Your task to perform on an android device: Add usb-c to the cart on newegg Image 0: 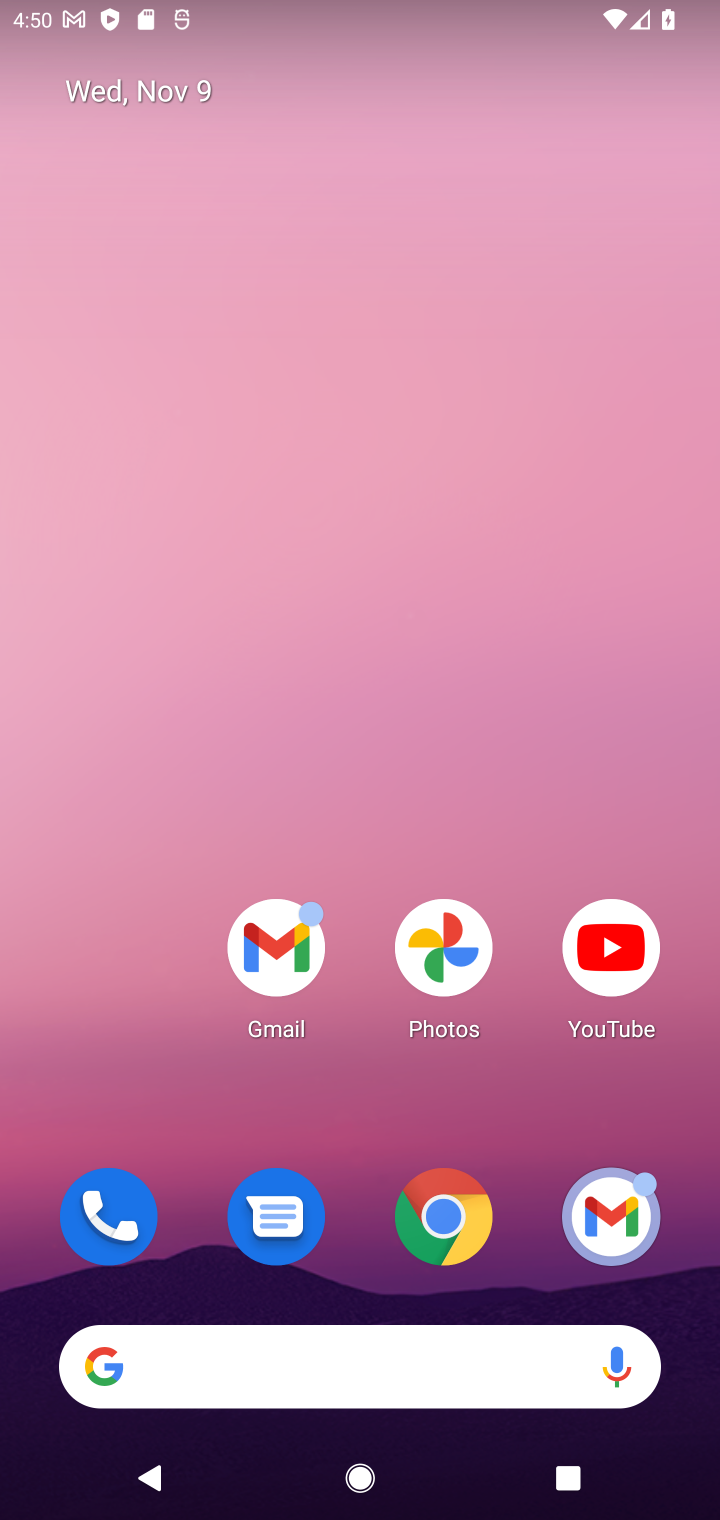
Step 0: drag from (374, 1125) to (340, 109)
Your task to perform on an android device: Add usb-c to the cart on newegg Image 1: 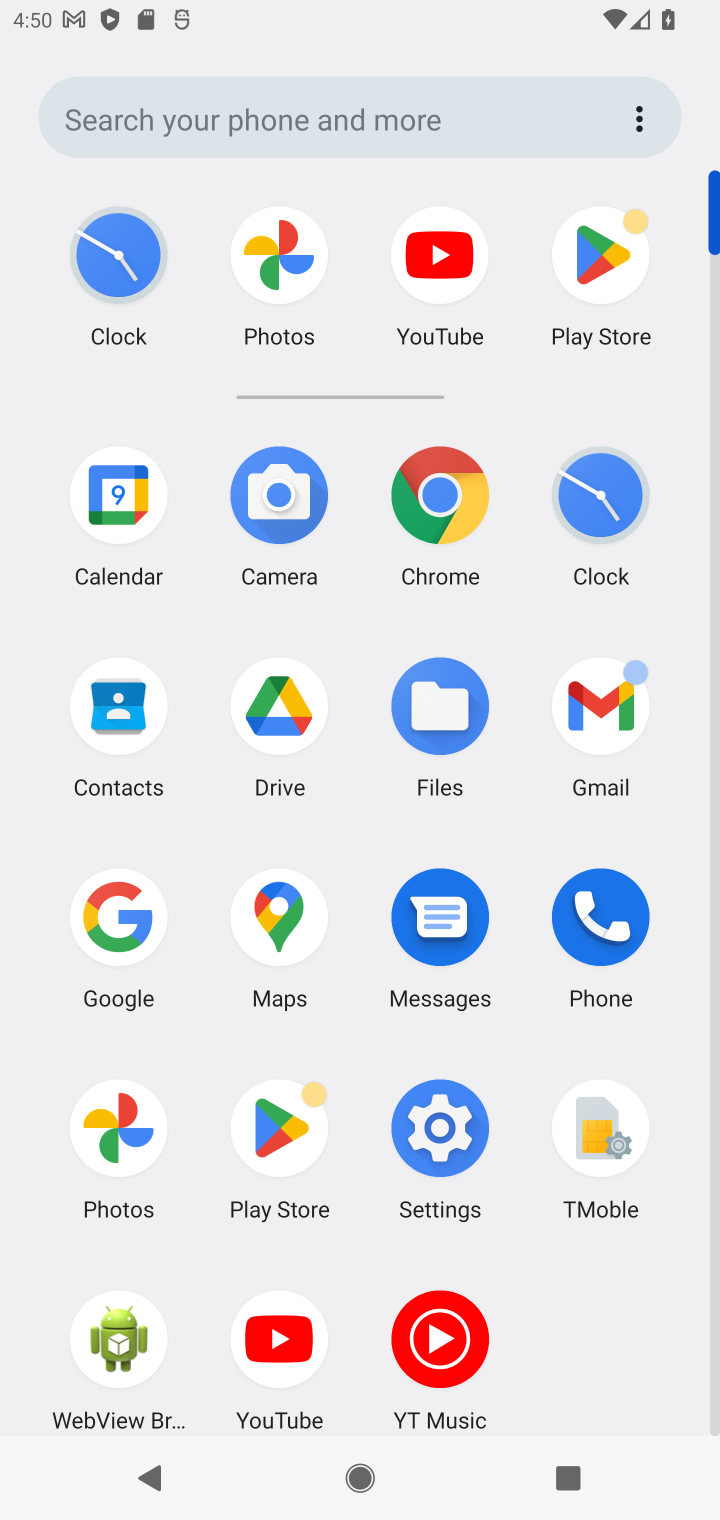
Step 1: click (440, 499)
Your task to perform on an android device: Add usb-c to the cart on newegg Image 2: 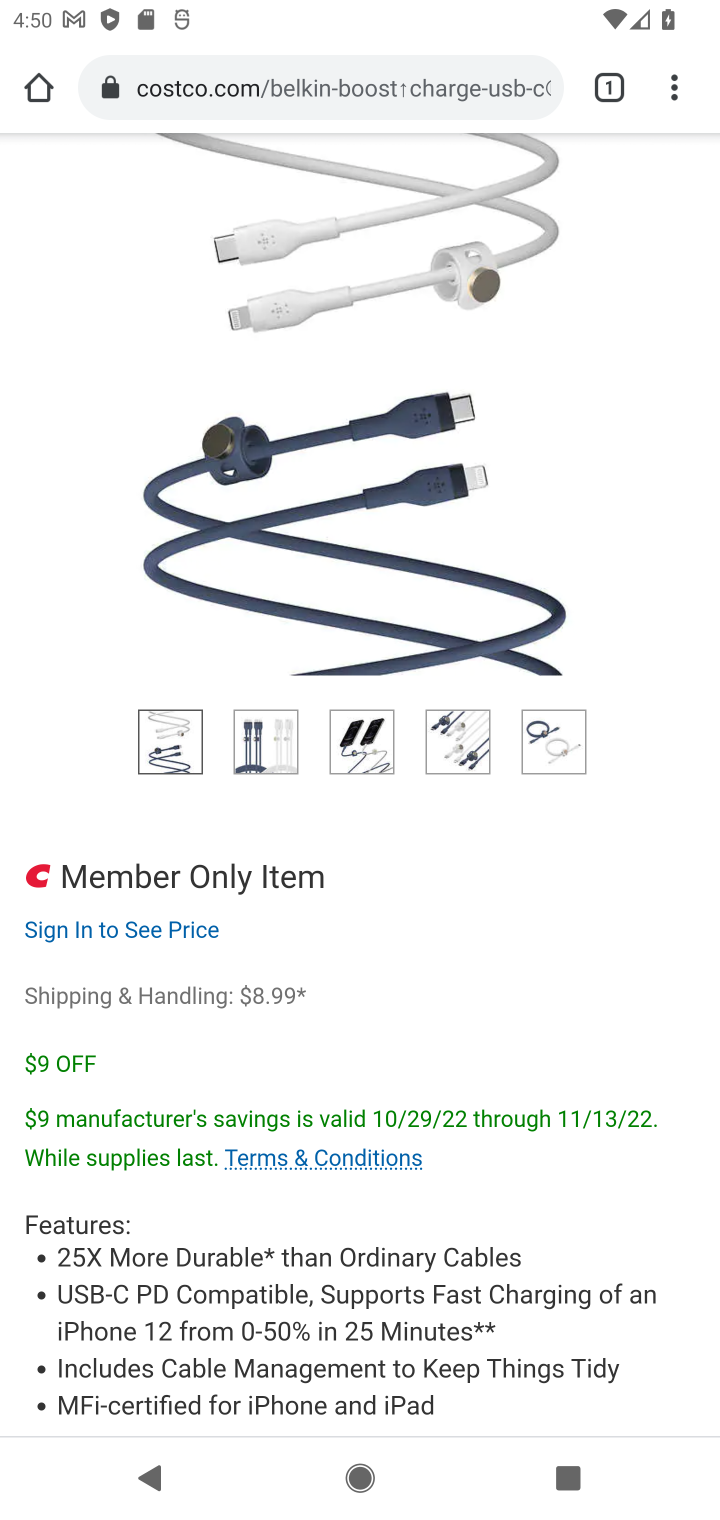
Step 2: click (413, 89)
Your task to perform on an android device: Add usb-c to the cart on newegg Image 3: 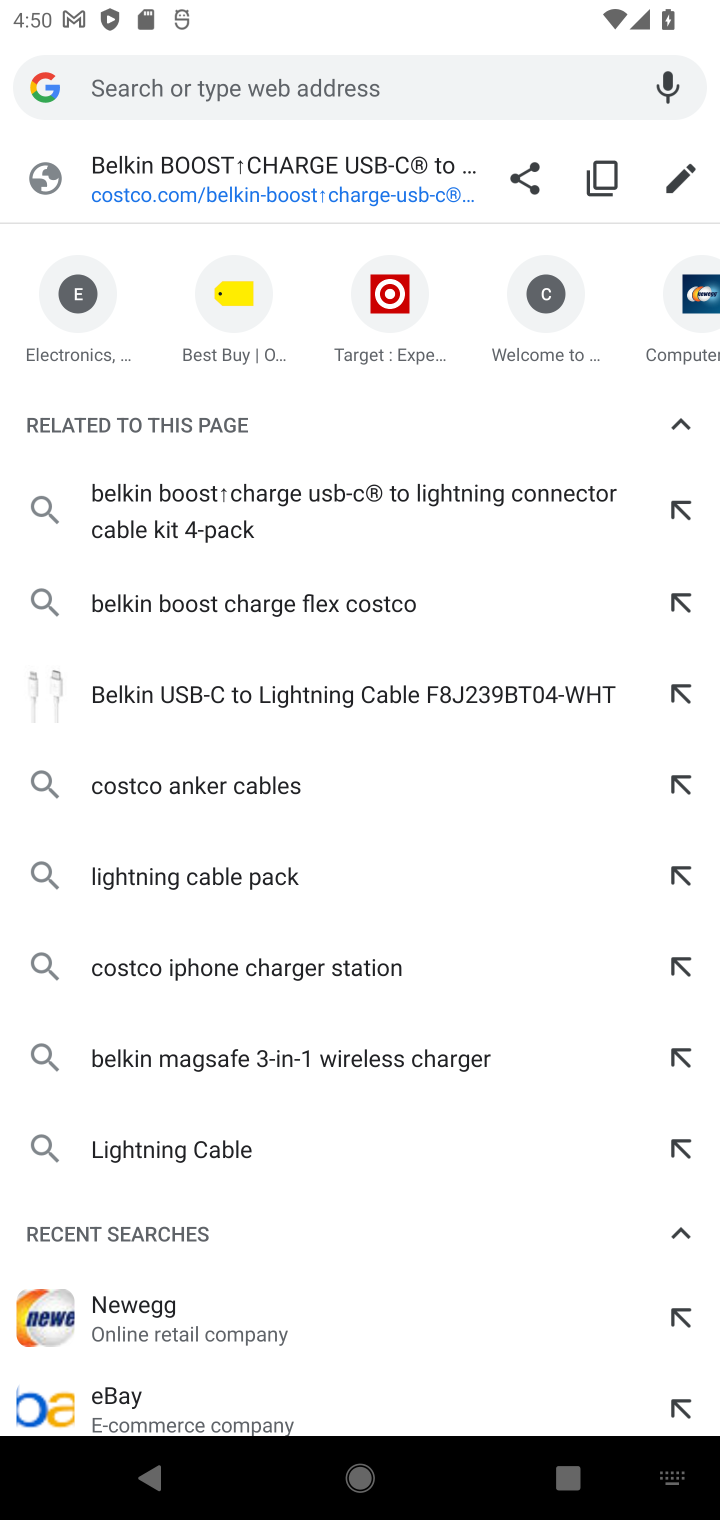
Step 3: type "newegg.com"
Your task to perform on an android device: Add usb-c to the cart on newegg Image 4: 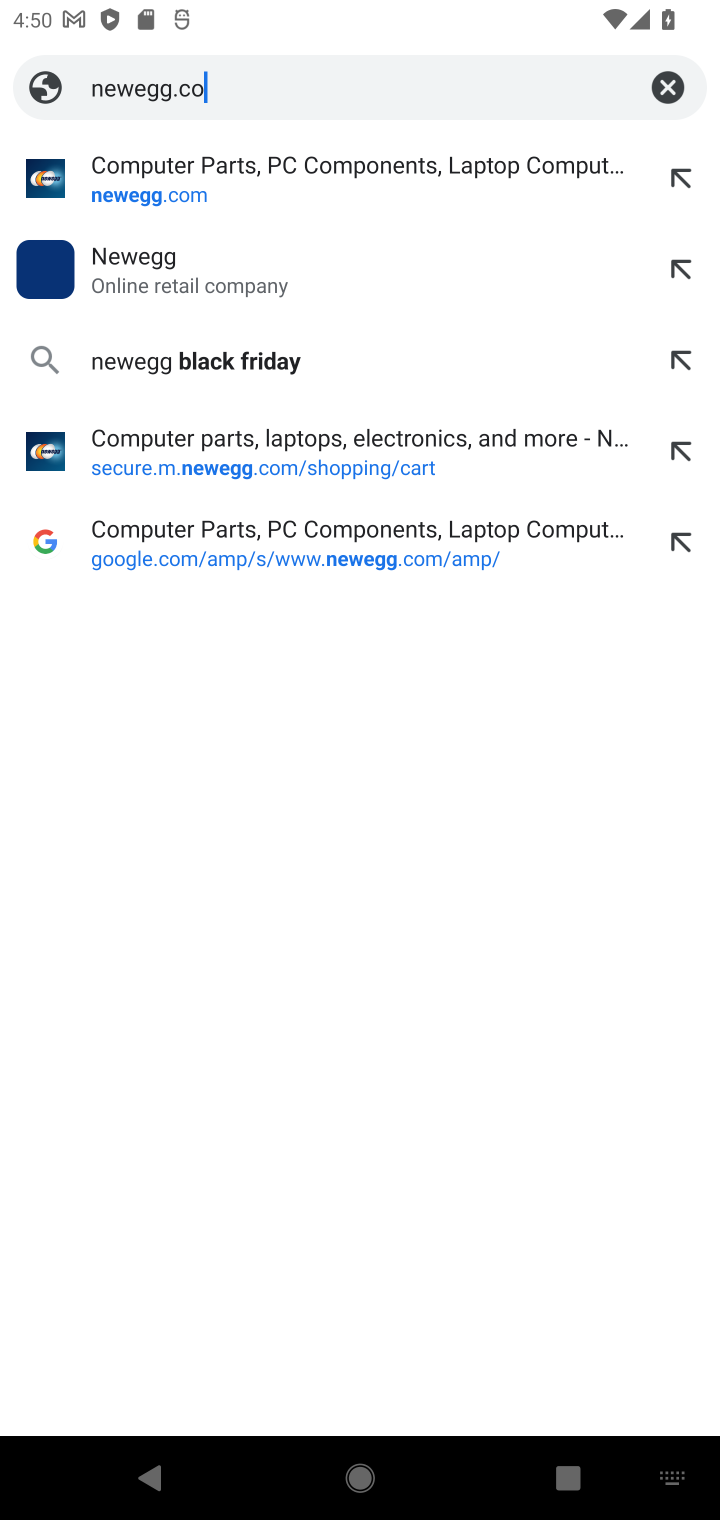
Step 4: press enter
Your task to perform on an android device: Add usb-c to the cart on newegg Image 5: 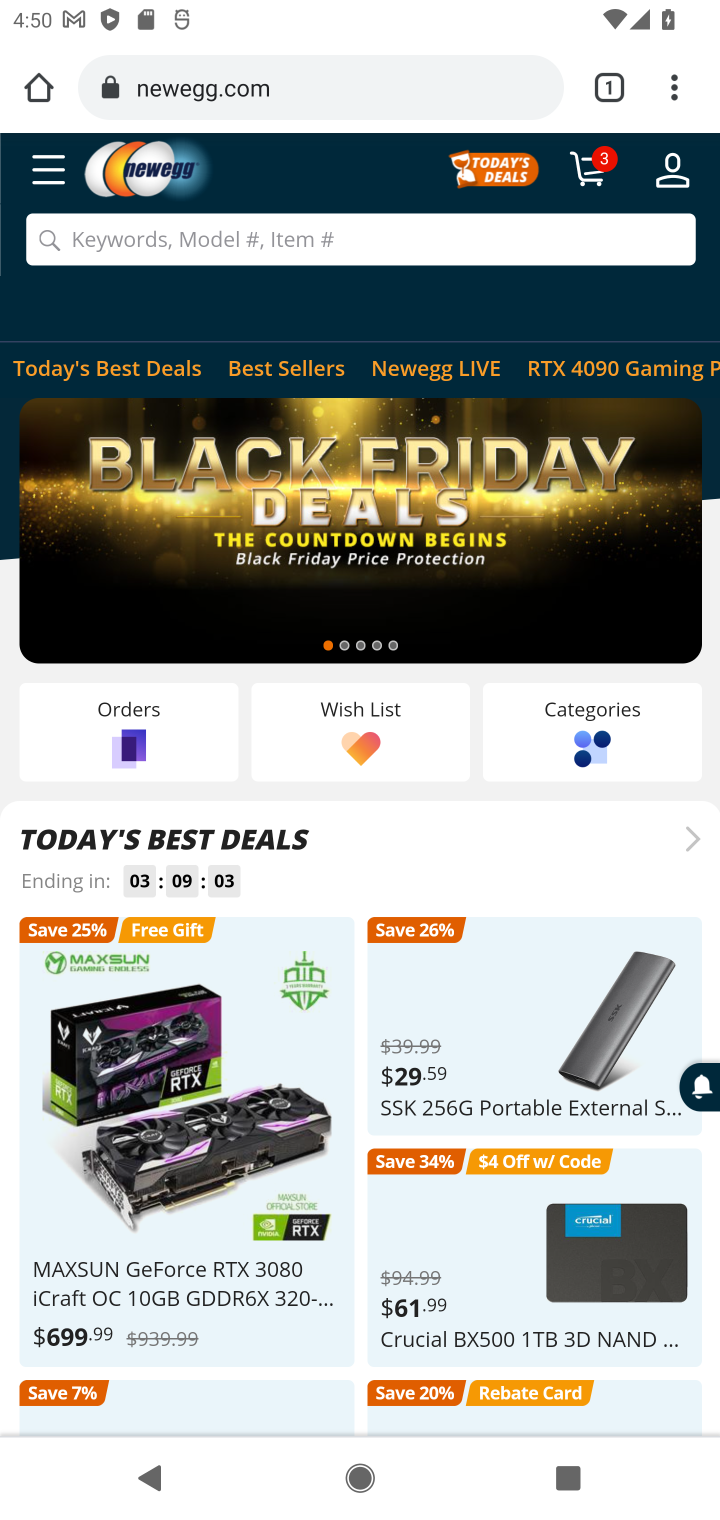
Step 5: click (345, 243)
Your task to perform on an android device: Add usb-c to the cart on newegg Image 6: 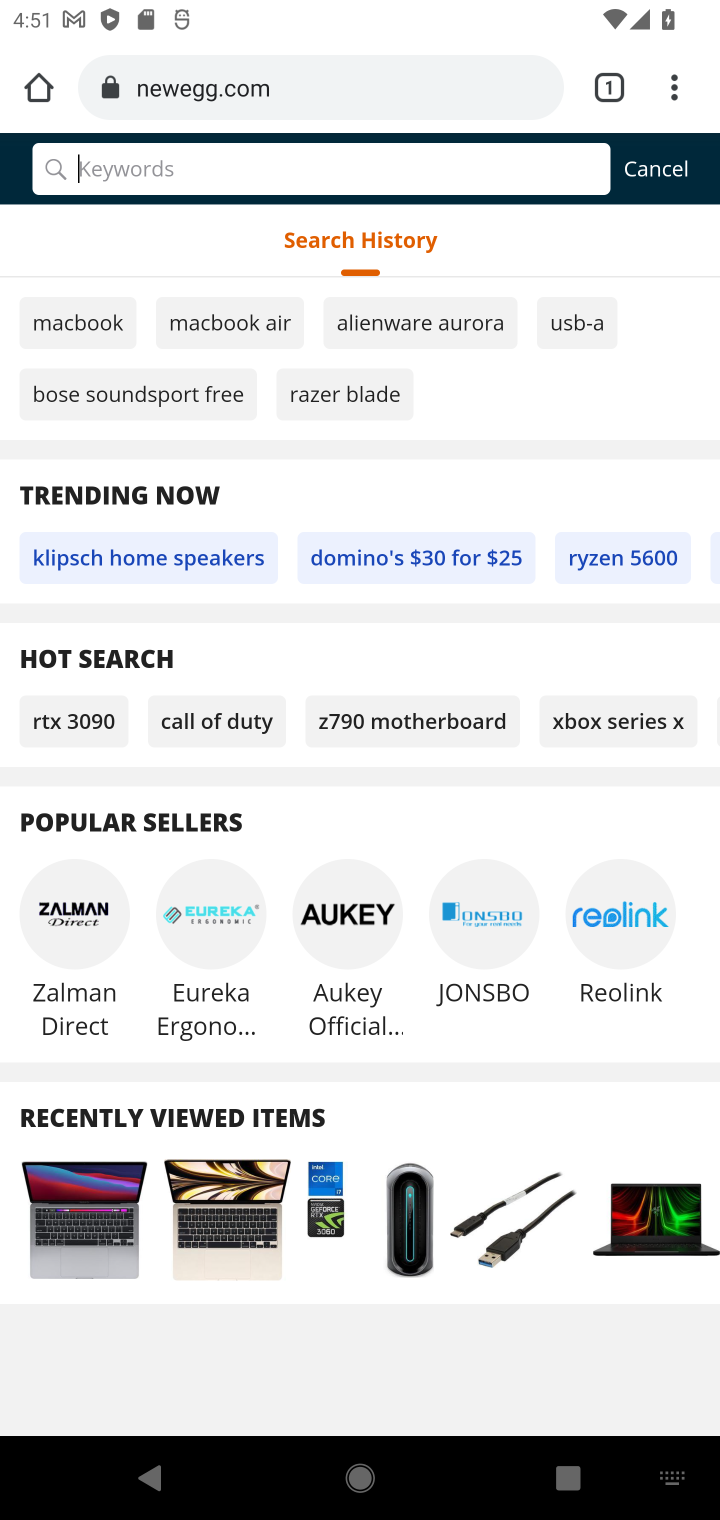
Step 6: type "usb-c"
Your task to perform on an android device: Add usb-c to the cart on newegg Image 7: 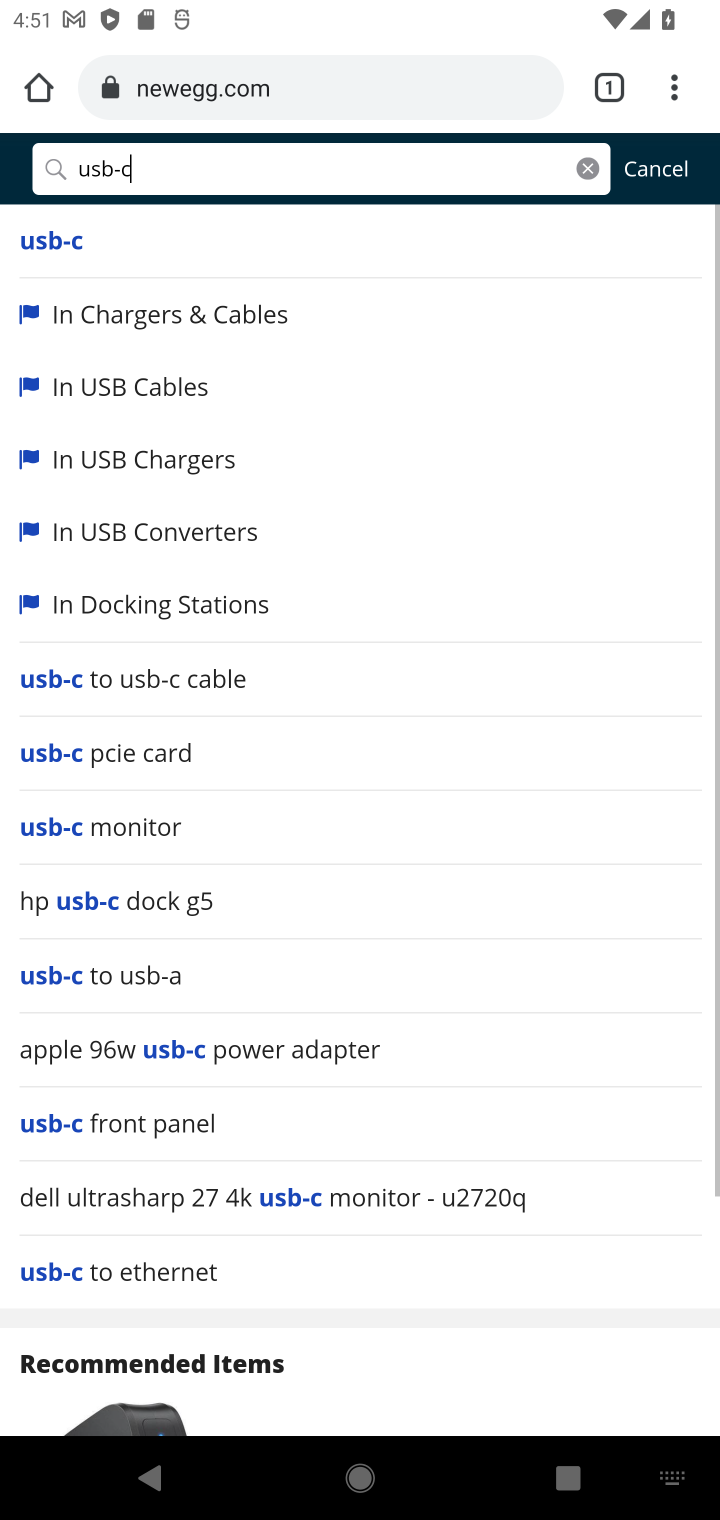
Step 7: press enter
Your task to perform on an android device: Add usb-c to the cart on newegg Image 8: 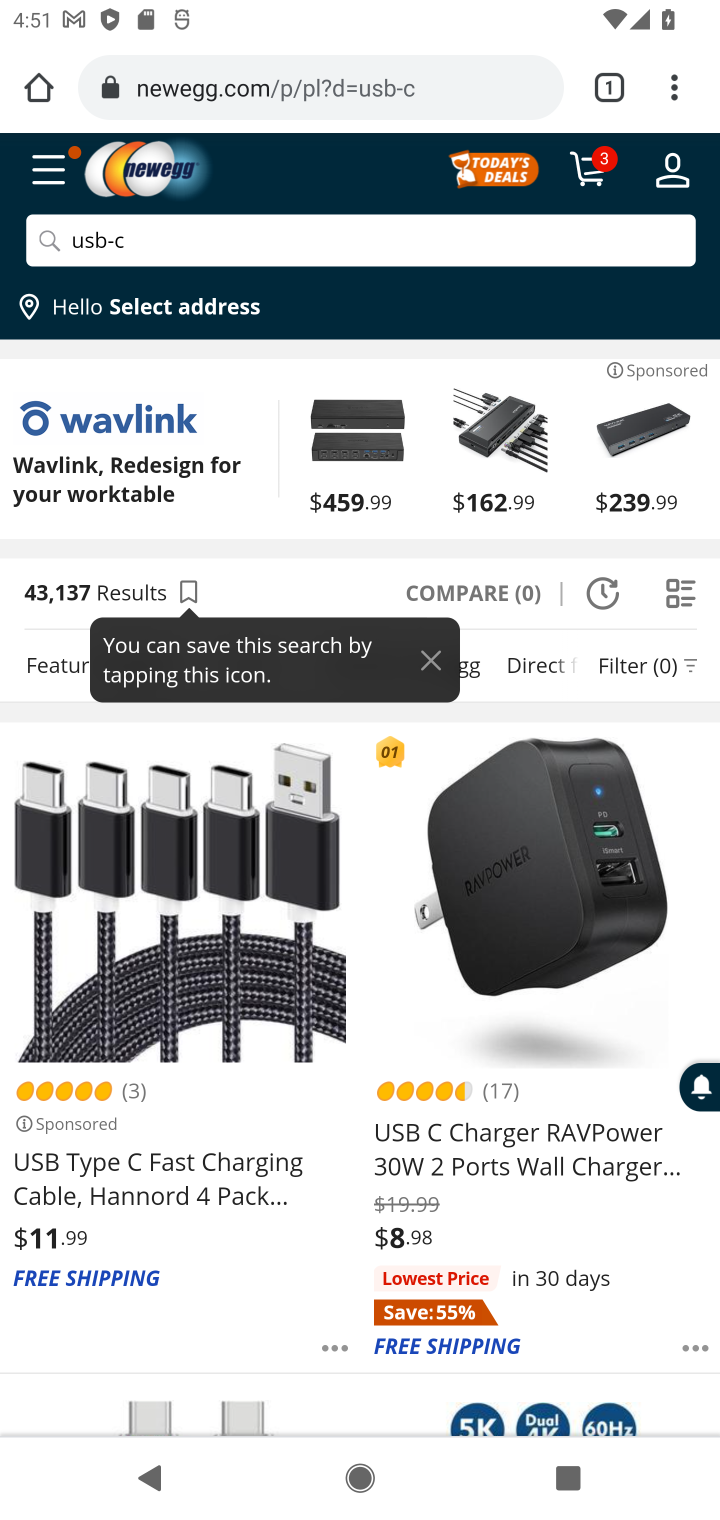
Step 8: click (221, 958)
Your task to perform on an android device: Add usb-c to the cart on newegg Image 9: 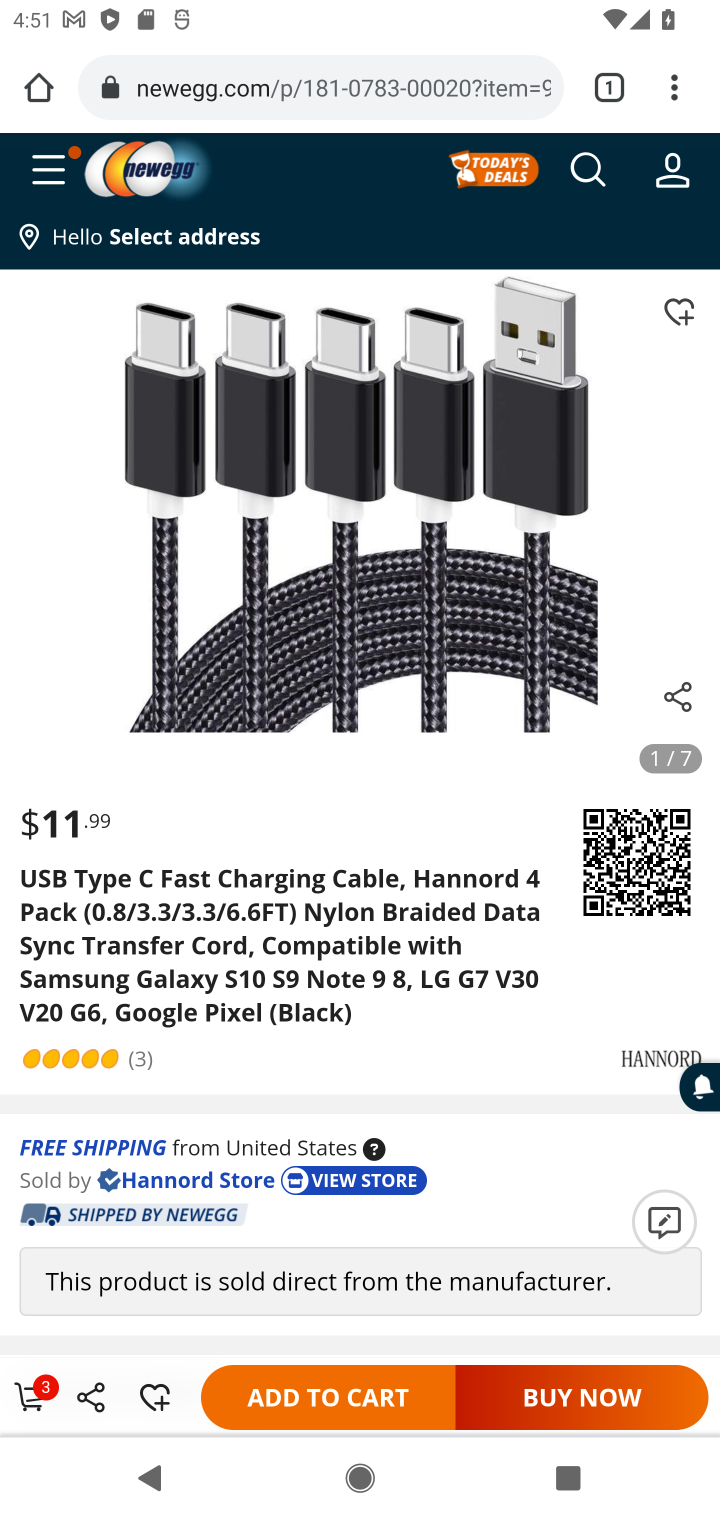
Step 9: press back button
Your task to perform on an android device: Add usb-c to the cart on newegg Image 10: 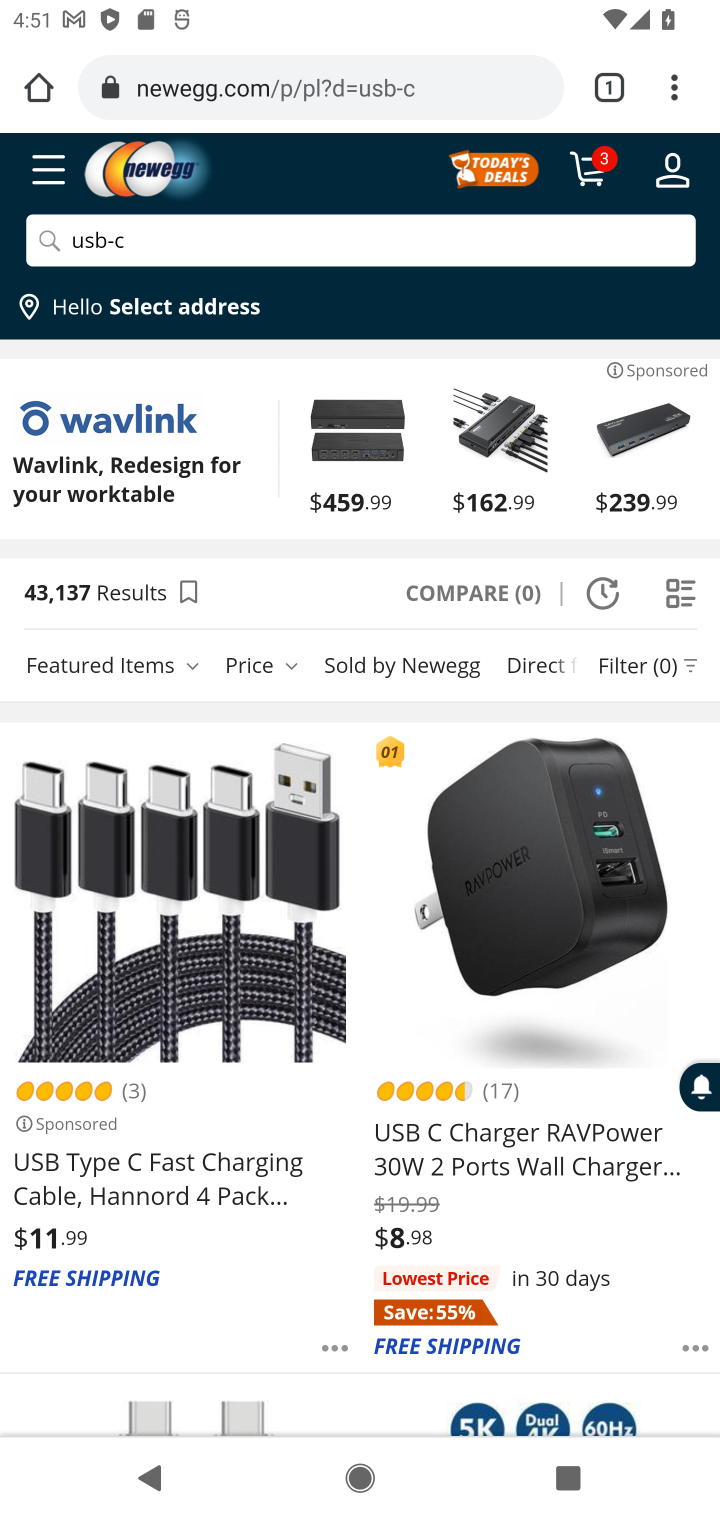
Step 10: click (544, 1150)
Your task to perform on an android device: Add usb-c to the cart on newegg Image 11: 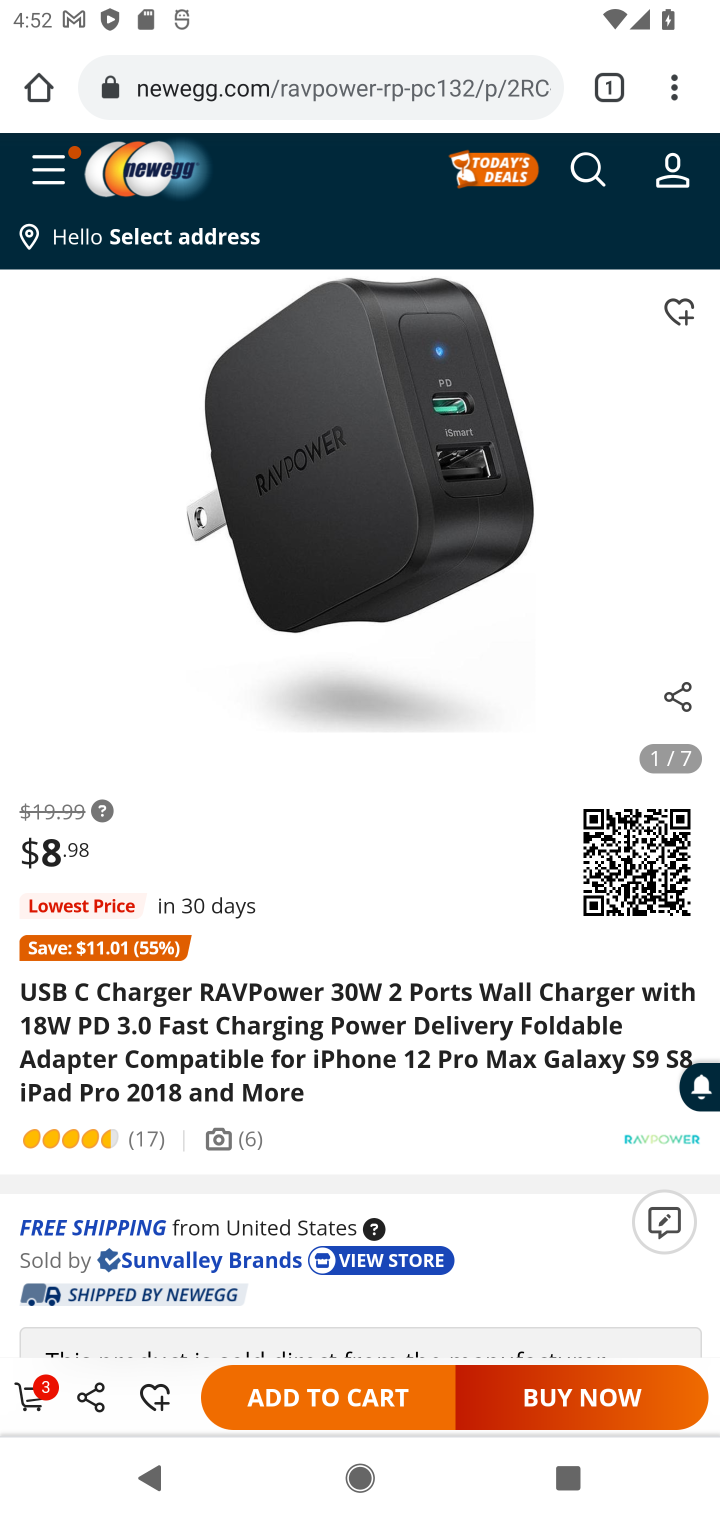
Step 11: click (346, 1401)
Your task to perform on an android device: Add usb-c to the cart on newegg Image 12: 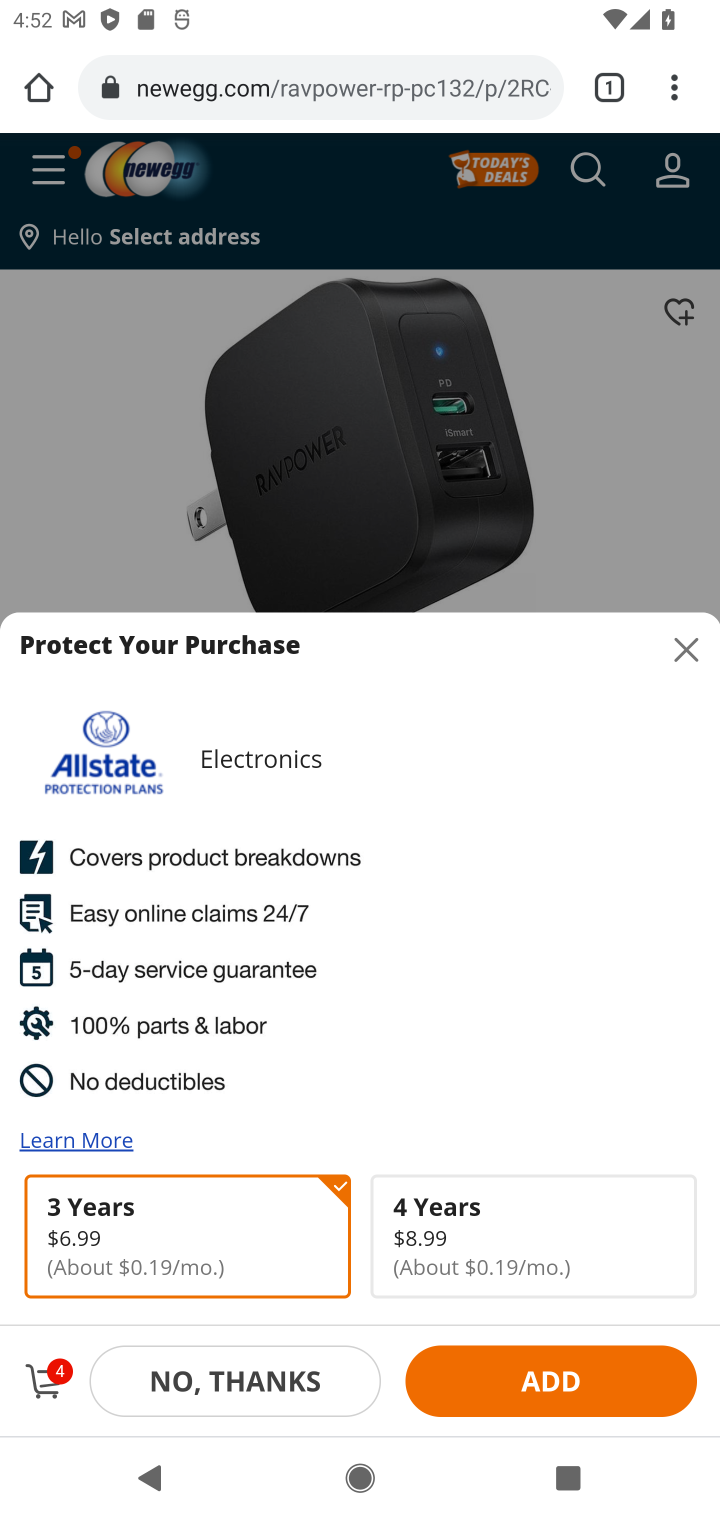
Step 12: task complete